Your task to perform on an android device: Search for razer thresher on costco, select the first entry, add it to the cart, then select checkout. Image 0: 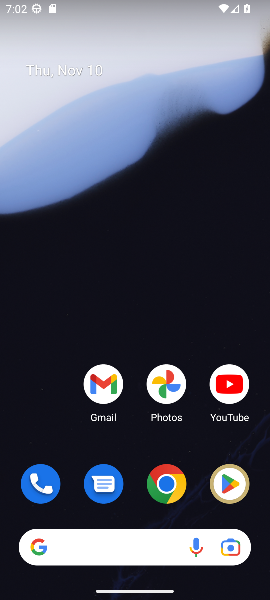
Step 0: click (167, 491)
Your task to perform on an android device: Search for razer thresher on costco, select the first entry, add it to the cart, then select checkout. Image 1: 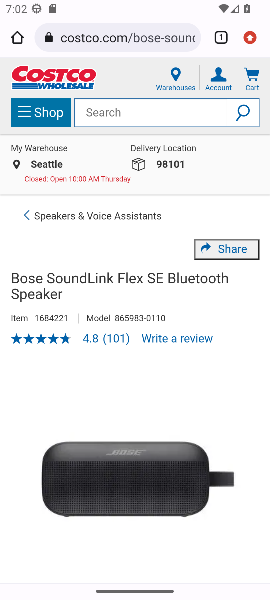
Step 1: click (130, 117)
Your task to perform on an android device: Search for razer thresher on costco, select the first entry, add it to the cart, then select checkout. Image 2: 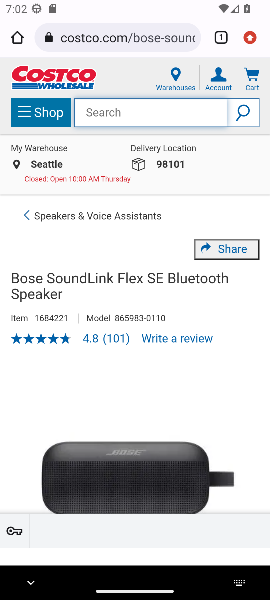
Step 2: type "razer thresher"
Your task to perform on an android device: Search for razer thresher on costco, select the first entry, add it to the cart, then select checkout. Image 3: 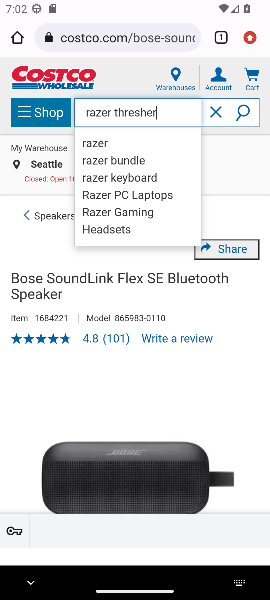
Step 3: click (239, 106)
Your task to perform on an android device: Search for razer thresher on costco, select the first entry, add it to the cart, then select checkout. Image 4: 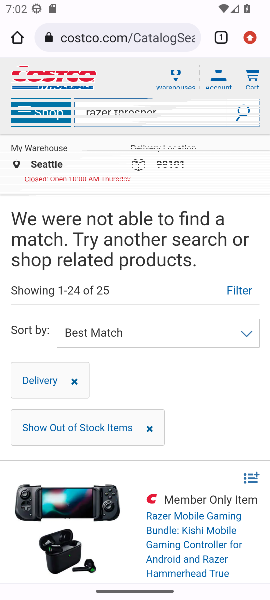
Step 4: task complete